Your task to perform on an android device: Do I have any events today? Image 0: 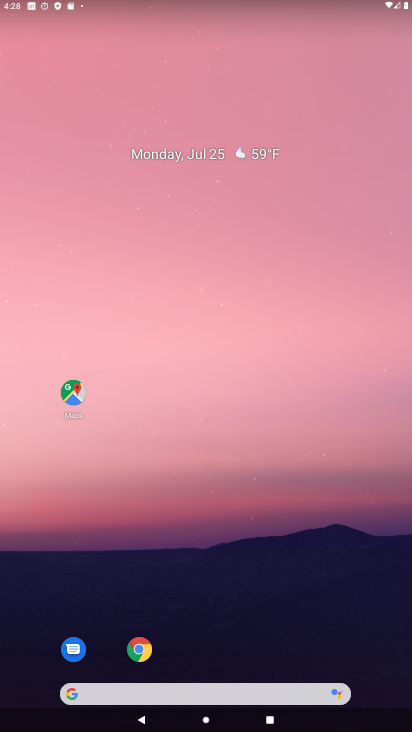
Step 0: drag from (274, 632) to (251, 178)
Your task to perform on an android device: Do I have any events today? Image 1: 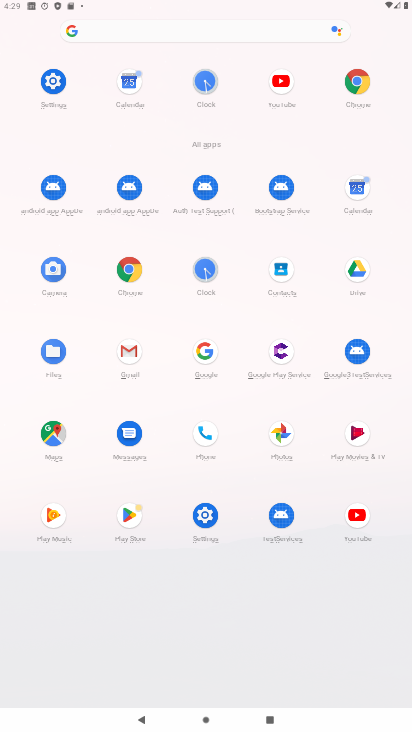
Step 1: click (354, 194)
Your task to perform on an android device: Do I have any events today? Image 2: 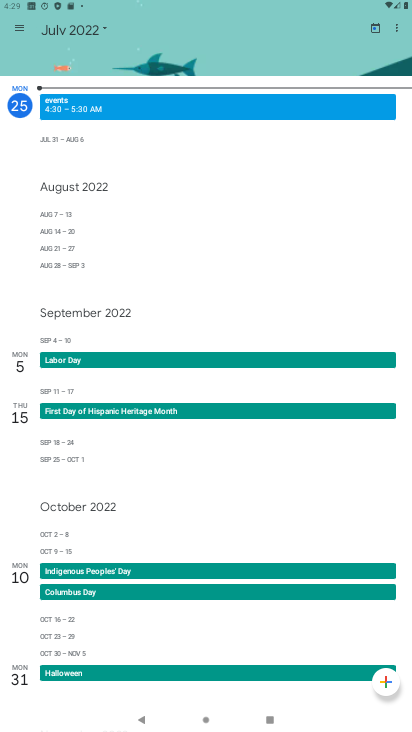
Step 2: click (17, 24)
Your task to perform on an android device: Do I have any events today? Image 3: 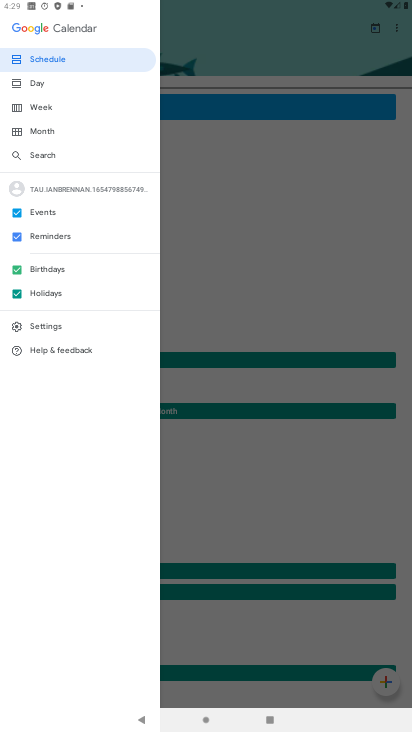
Step 3: click (16, 292)
Your task to perform on an android device: Do I have any events today? Image 4: 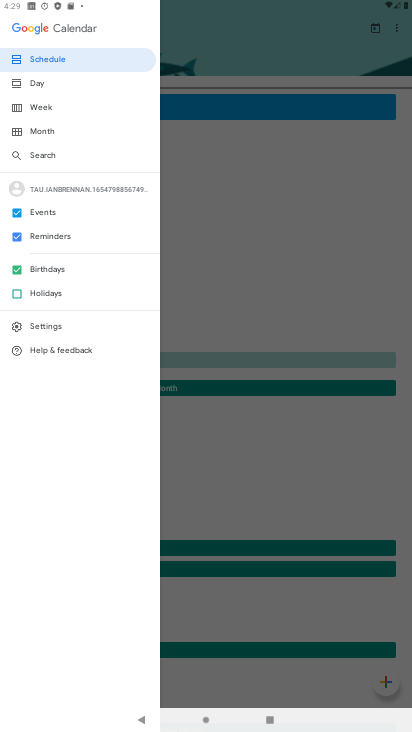
Step 4: click (15, 266)
Your task to perform on an android device: Do I have any events today? Image 5: 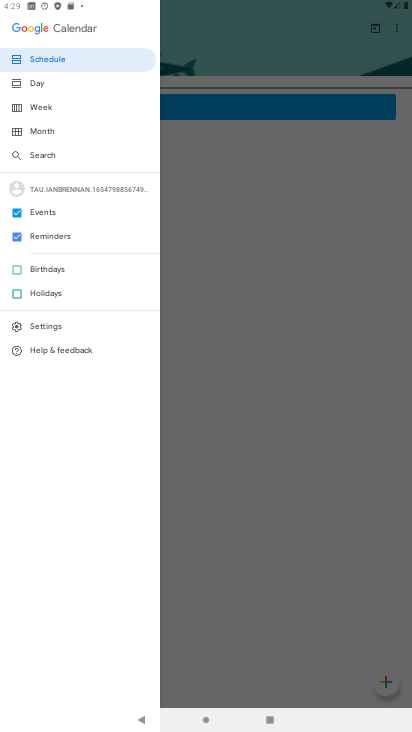
Step 5: click (16, 228)
Your task to perform on an android device: Do I have any events today? Image 6: 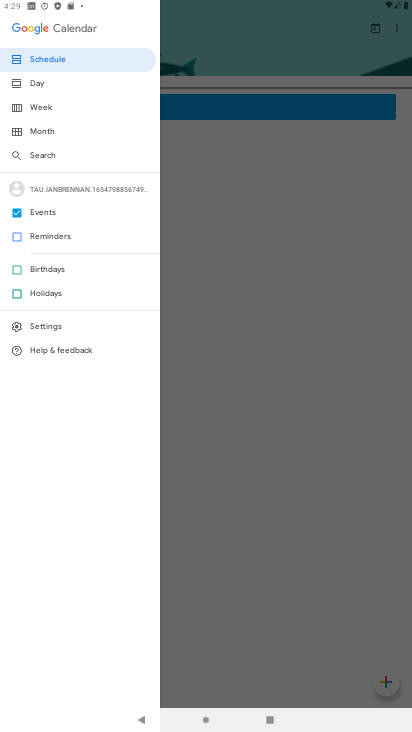
Step 6: click (58, 83)
Your task to perform on an android device: Do I have any events today? Image 7: 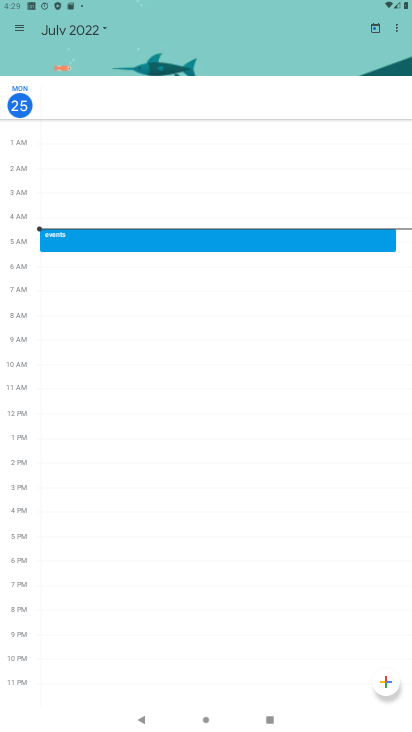
Step 7: task complete